Your task to perform on an android device: see sites visited before in the chrome app Image 0: 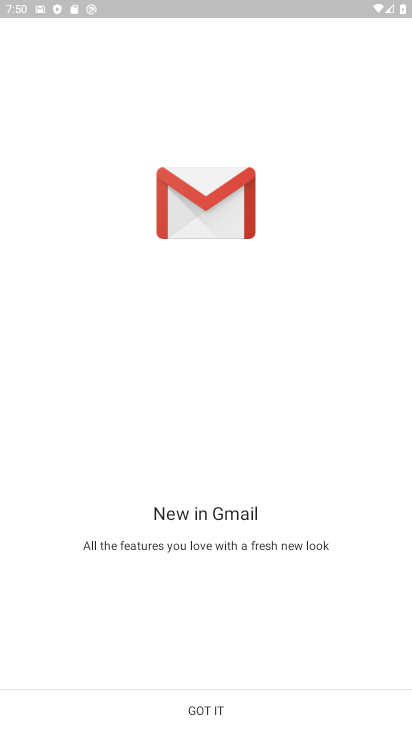
Step 0: press home button
Your task to perform on an android device: see sites visited before in the chrome app Image 1: 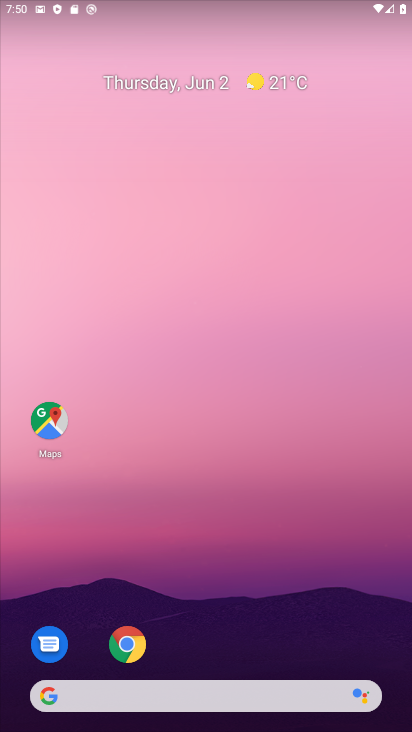
Step 1: click (127, 629)
Your task to perform on an android device: see sites visited before in the chrome app Image 2: 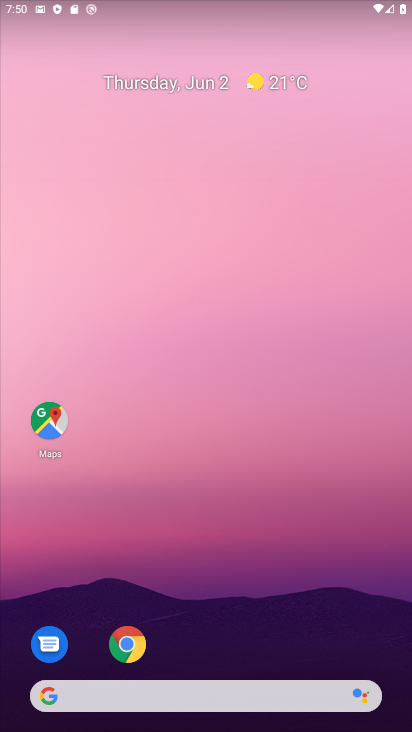
Step 2: click (127, 629)
Your task to perform on an android device: see sites visited before in the chrome app Image 3: 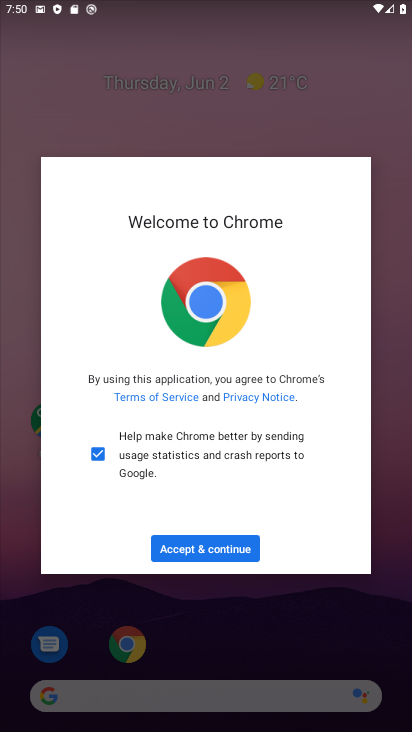
Step 3: click (180, 549)
Your task to perform on an android device: see sites visited before in the chrome app Image 4: 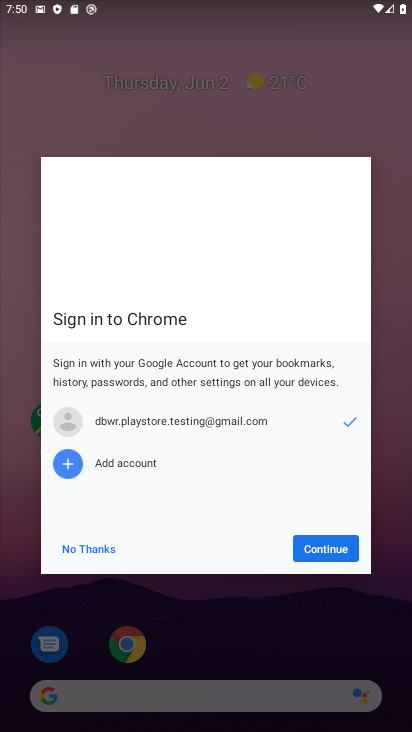
Step 4: click (91, 551)
Your task to perform on an android device: see sites visited before in the chrome app Image 5: 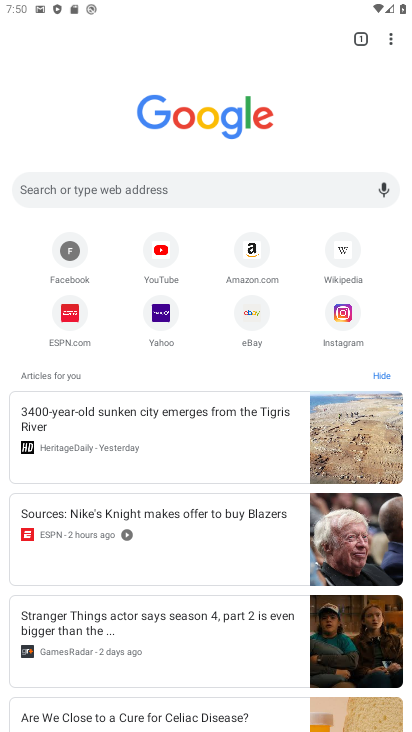
Step 5: click (389, 43)
Your task to perform on an android device: see sites visited before in the chrome app Image 6: 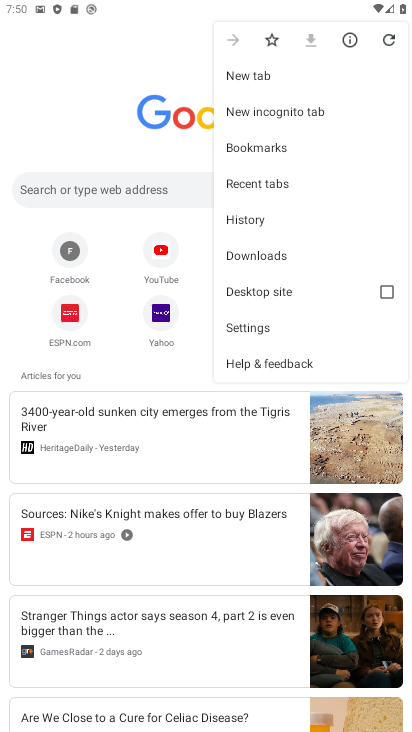
Step 6: click (252, 225)
Your task to perform on an android device: see sites visited before in the chrome app Image 7: 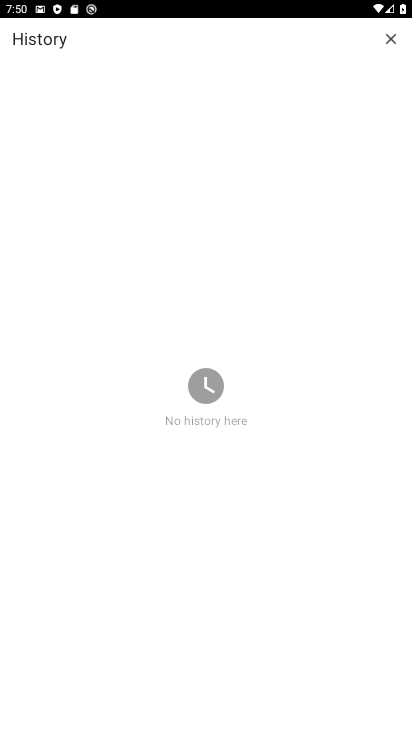
Step 7: task complete